Your task to perform on an android device: toggle translation in the chrome app Image 0: 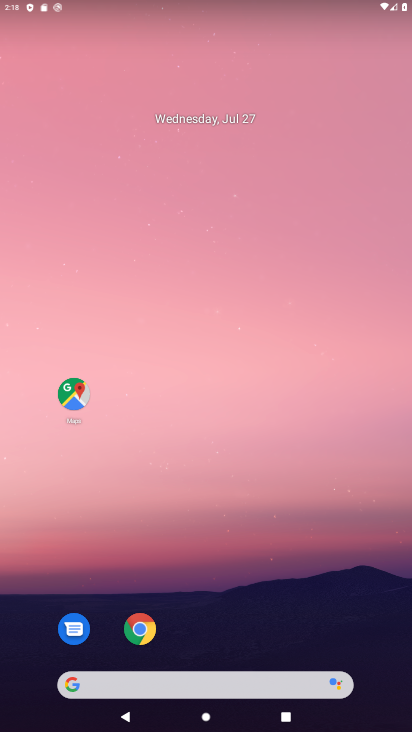
Step 0: click (135, 620)
Your task to perform on an android device: toggle translation in the chrome app Image 1: 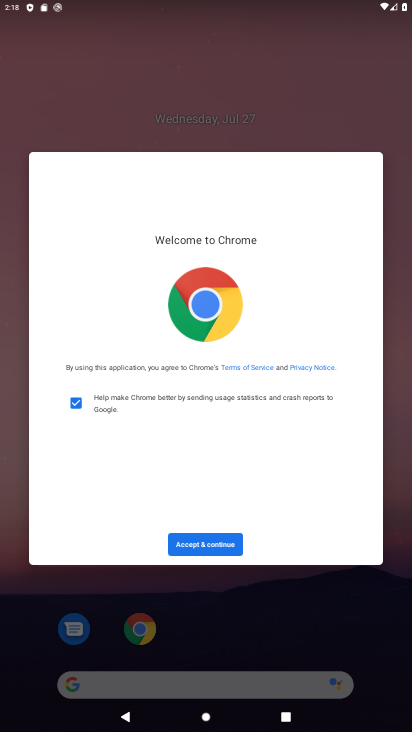
Step 1: click (220, 533)
Your task to perform on an android device: toggle translation in the chrome app Image 2: 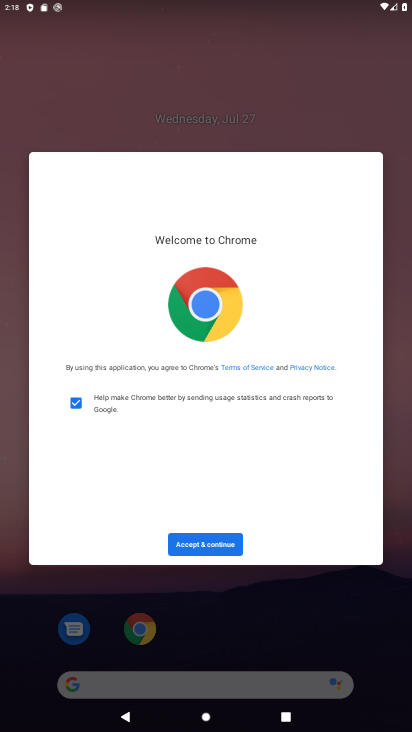
Step 2: click (220, 533)
Your task to perform on an android device: toggle translation in the chrome app Image 3: 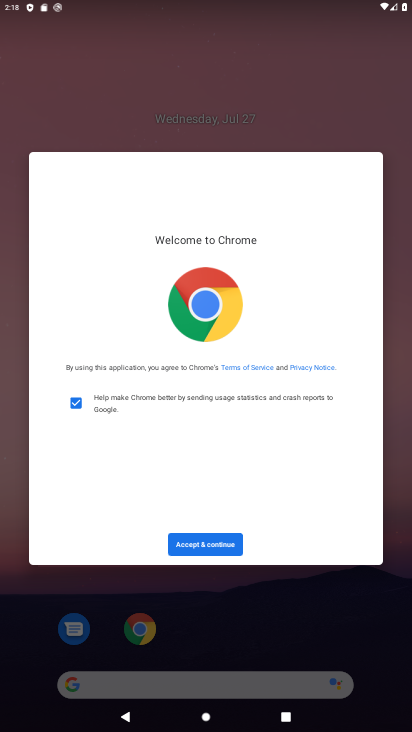
Step 3: click (223, 540)
Your task to perform on an android device: toggle translation in the chrome app Image 4: 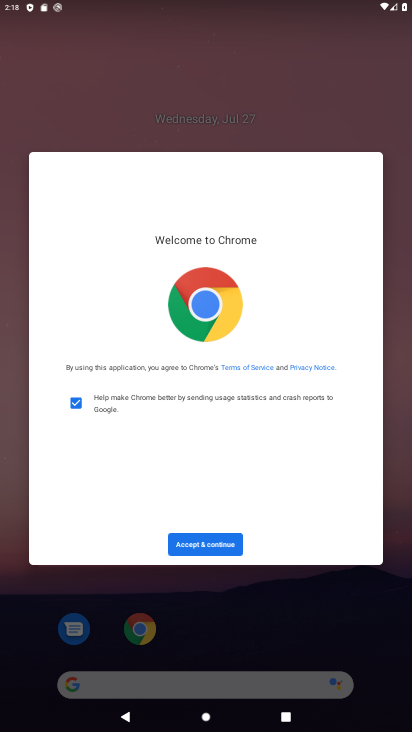
Step 4: click (223, 540)
Your task to perform on an android device: toggle translation in the chrome app Image 5: 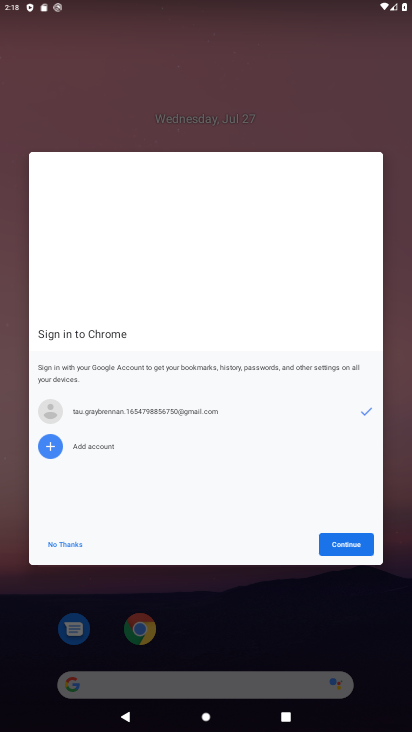
Step 5: click (223, 540)
Your task to perform on an android device: toggle translation in the chrome app Image 6: 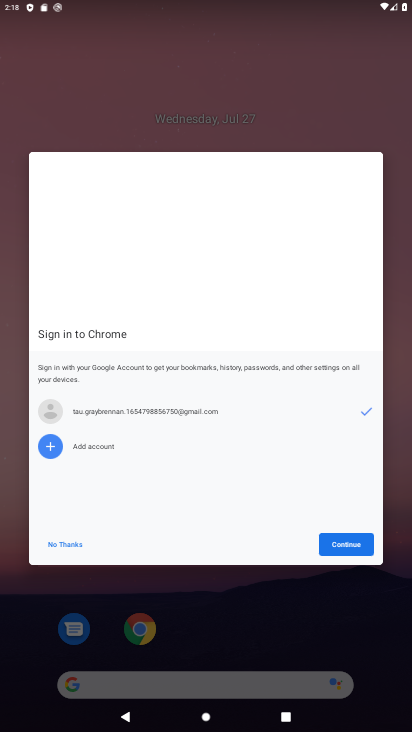
Step 6: click (339, 537)
Your task to perform on an android device: toggle translation in the chrome app Image 7: 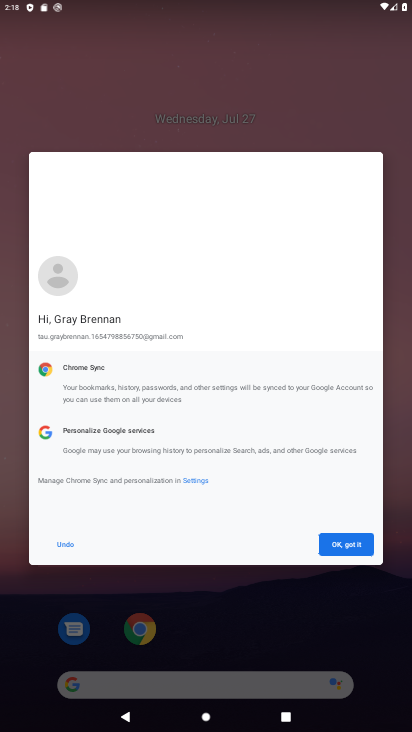
Step 7: click (340, 544)
Your task to perform on an android device: toggle translation in the chrome app Image 8: 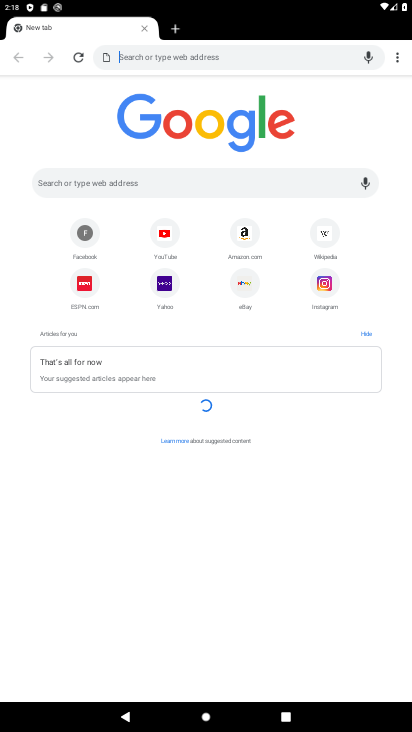
Step 8: click (402, 60)
Your task to perform on an android device: toggle translation in the chrome app Image 9: 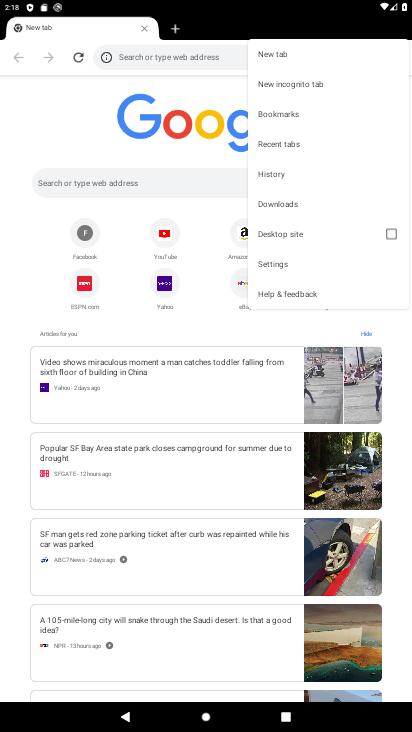
Step 9: click (308, 270)
Your task to perform on an android device: toggle translation in the chrome app Image 10: 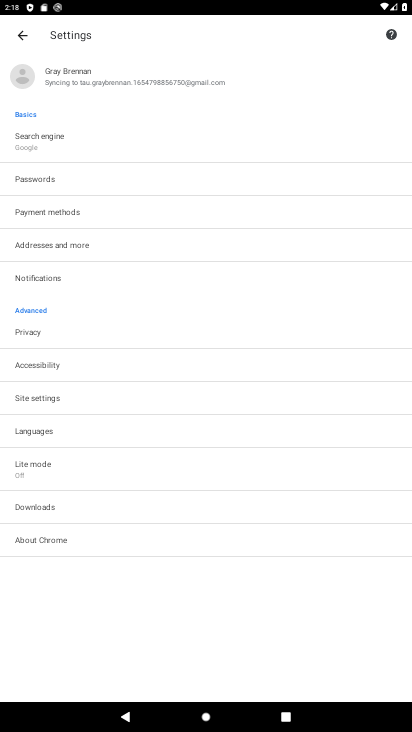
Step 10: click (117, 435)
Your task to perform on an android device: toggle translation in the chrome app Image 11: 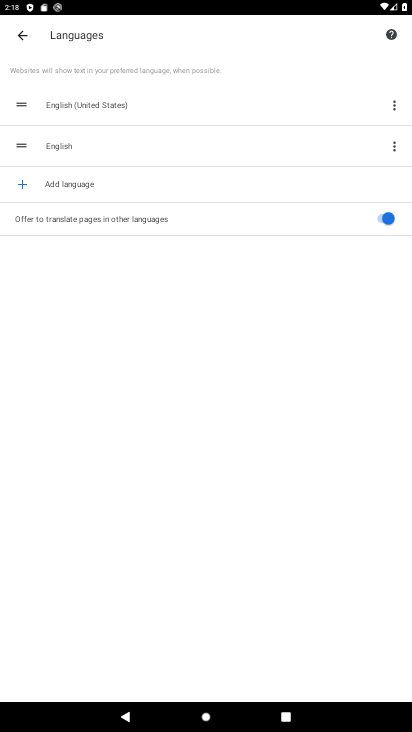
Step 11: click (387, 221)
Your task to perform on an android device: toggle translation in the chrome app Image 12: 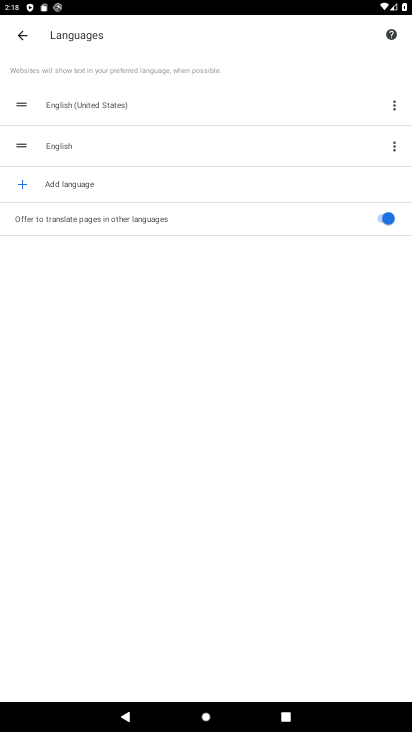
Step 12: click (387, 221)
Your task to perform on an android device: toggle translation in the chrome app Image 13: 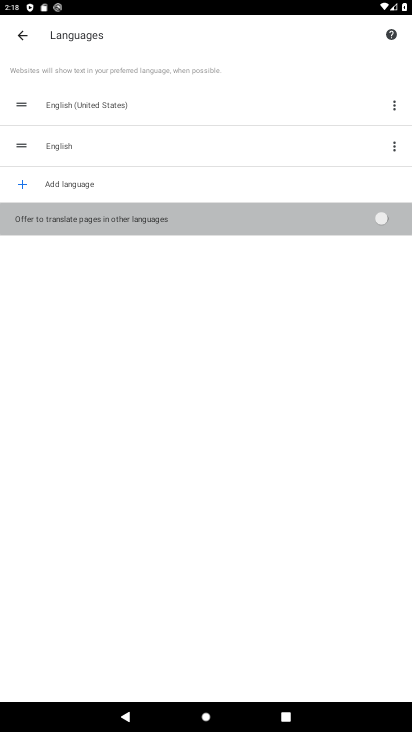
Step 13: click (387, 221)
Your task to perform on an android device: toggle translation in the chrome app Image 14: 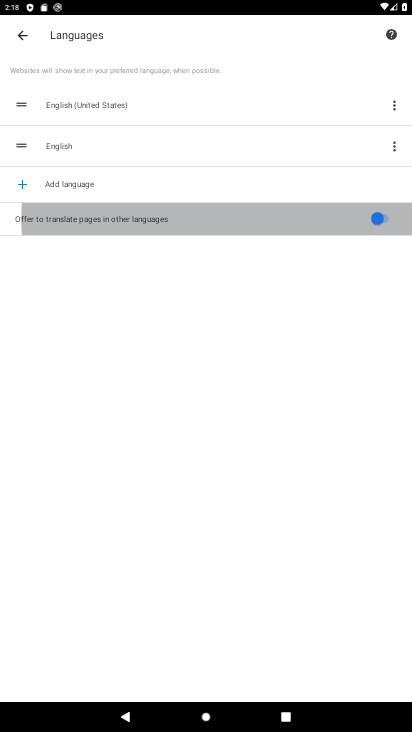
Step 14: click (387, 221)
Your task to perform on an android device: toggle translation in the chrome app Image 15: 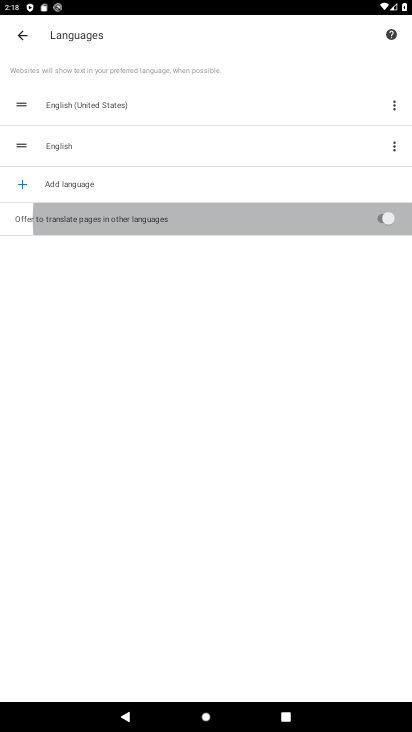
Step 15: click (387, 221)
Your task to perform on an android device: toggle translation in the chrome app Image 16: 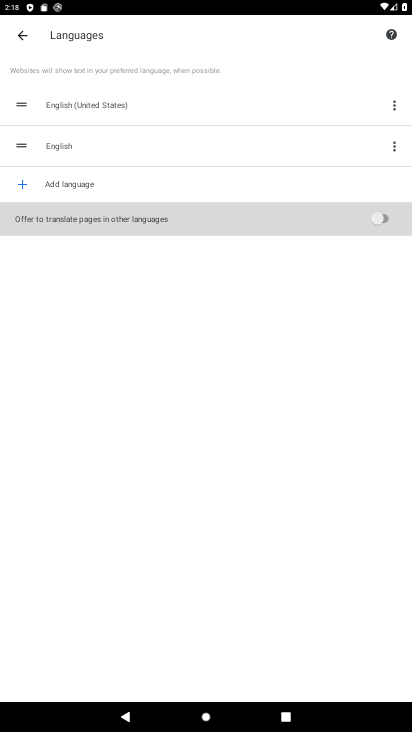
Step 16: click (387, 221)
Your task to perform on an android device: toggle translation in the chrome app Image 17: 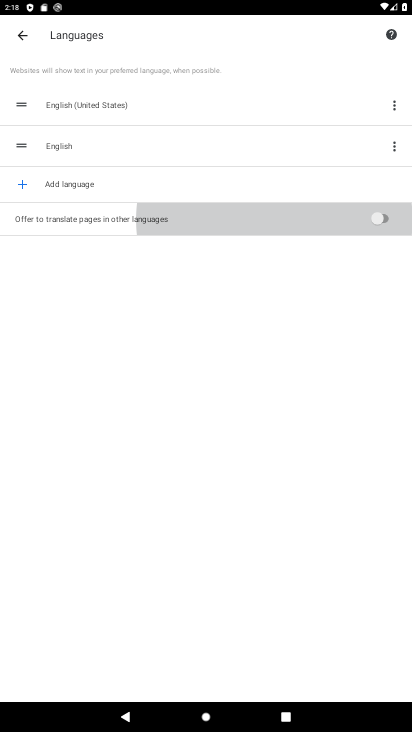
Step 17: click (387, 221)
Your task to perform on an android device: toggle translation in the chrome app Image 18: 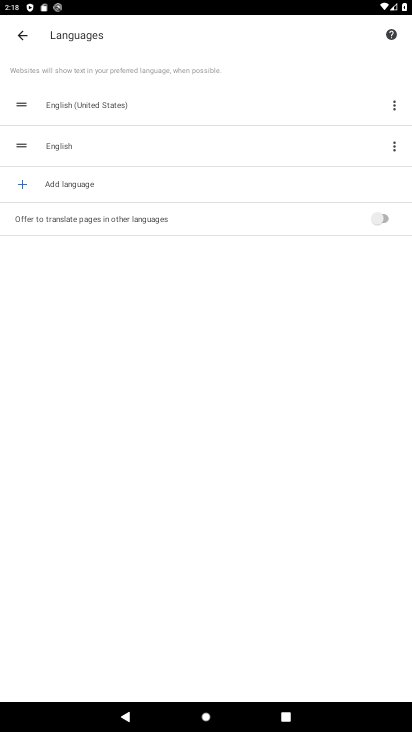
Step 18: task complete